Your task to perform on an android device: Open internet settings Image 0: 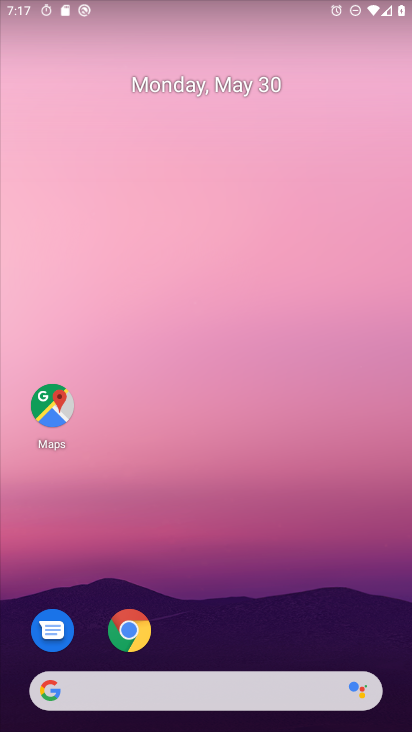
Step 0: drag from (379, 636) to (313, 102)
Your task to perform on an android device: Open internet settings Image 1: 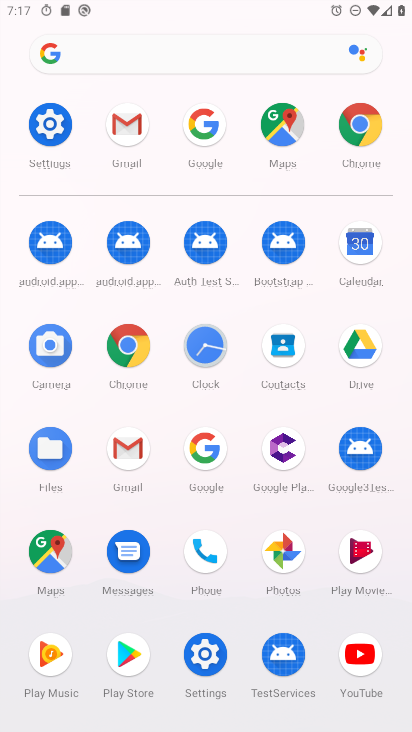
Step 1: click (204, 657)
Your task to perform on an android device: Open internet settings Image 2: 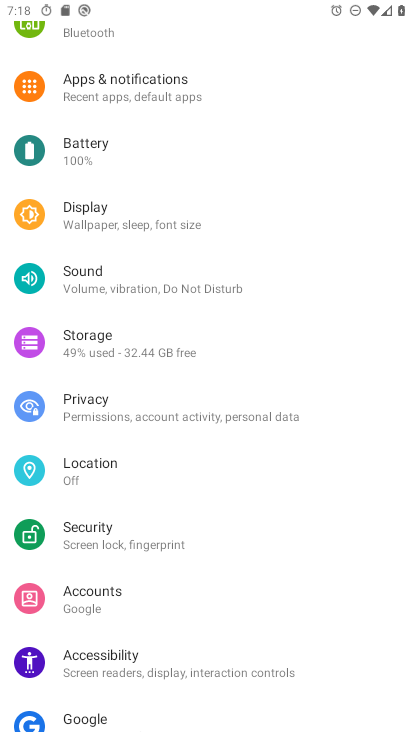
Step 2: drag from (281, 105) to (295, 547)
Your task to perform on an android device: Open internet settings Image 3: 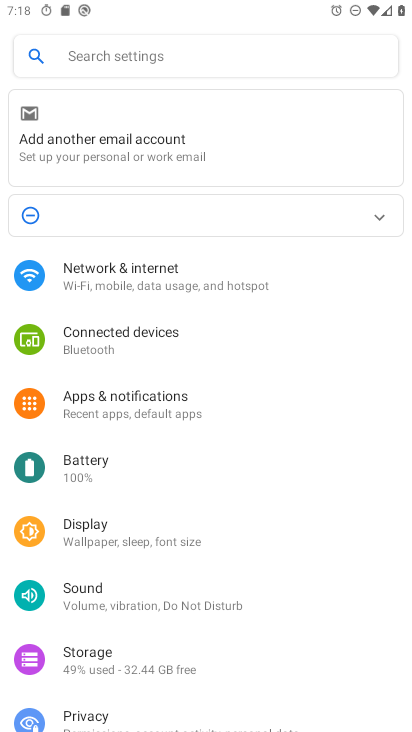
Step 3: click (226, 293)
Your task to perform on an android device: Open internet settings Image 4: 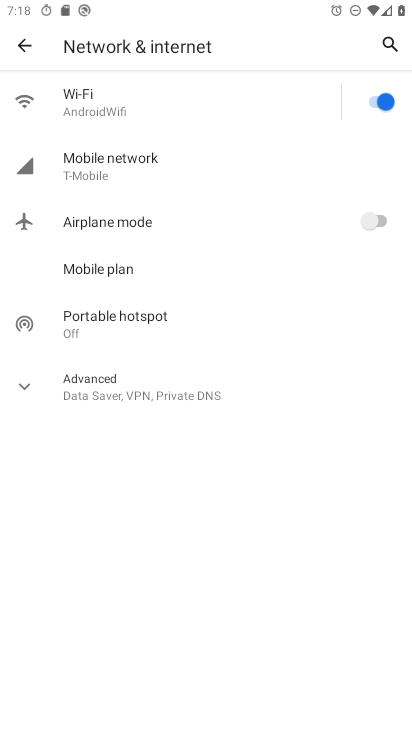
Step 4: task complete